Your task to perform on an android device: change the clock display to digital Image 0: 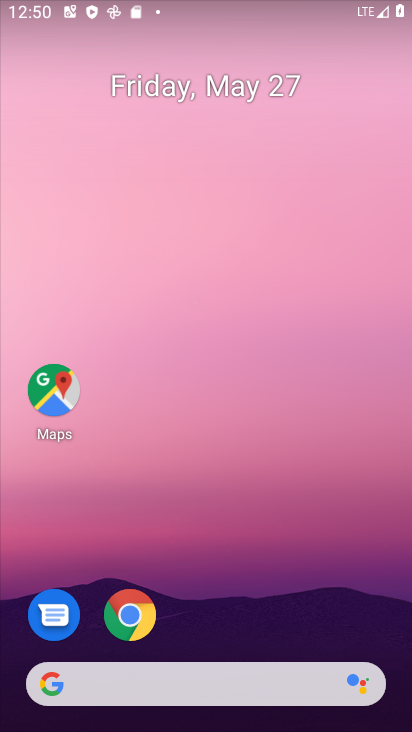
Step 0: drag from (364, 692) to (314, 27)
Your task to perform on an android device: change the clock display to digital Image 1: 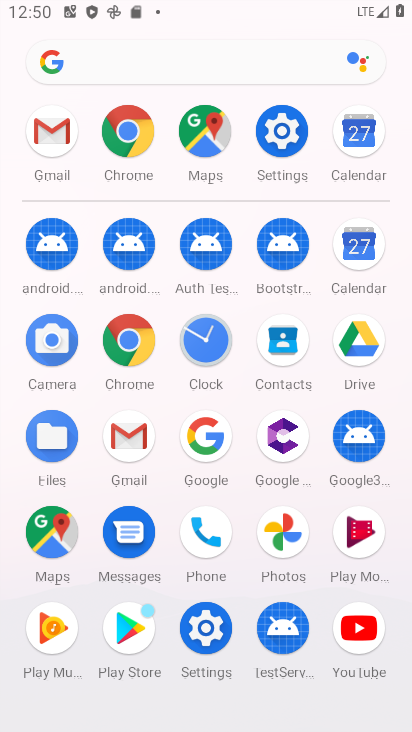
Step 1: click (191, 343)
Your task to perform on an android device: change the clock display to digital Image 2: 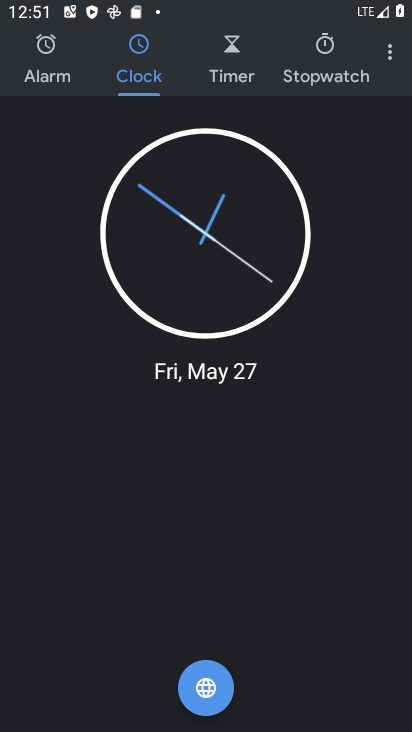
Step 2: click (401, 58)
Your task to perform on an android device: change the clock display to digital Image 3: 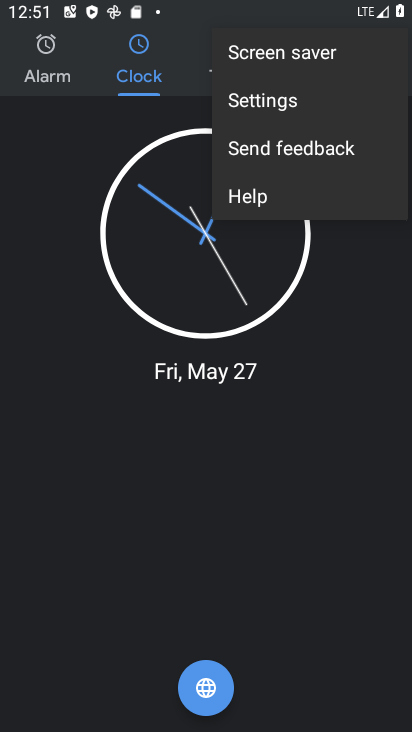
Step 3: click (295, 106)
Your task to perform on an android device: change the clock display to digital Image 4: 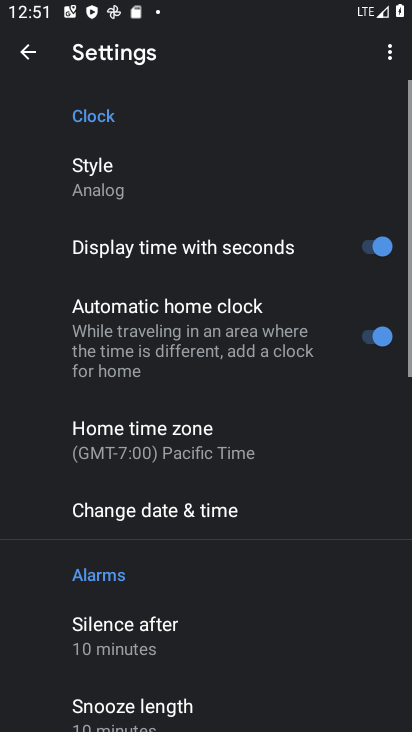
Step 4: click (152, 190)
Your task to perform on an android device: change the clock display to digital Image 5: 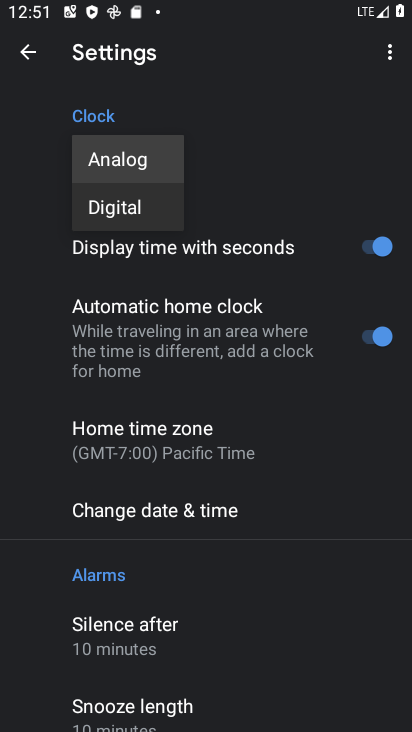
Step 5: click (137, 211)
Your task to perform on an android device: change the clock display to digital Image 6: 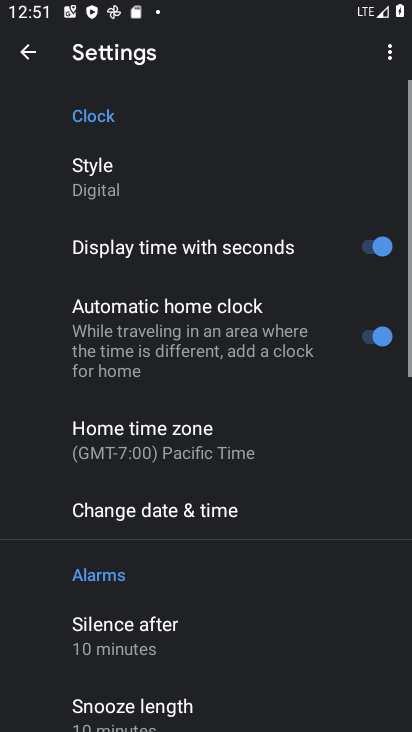
Step 6: task complete